Your task to perform on an android device: Go to calendar. Show me events next week Image 0: 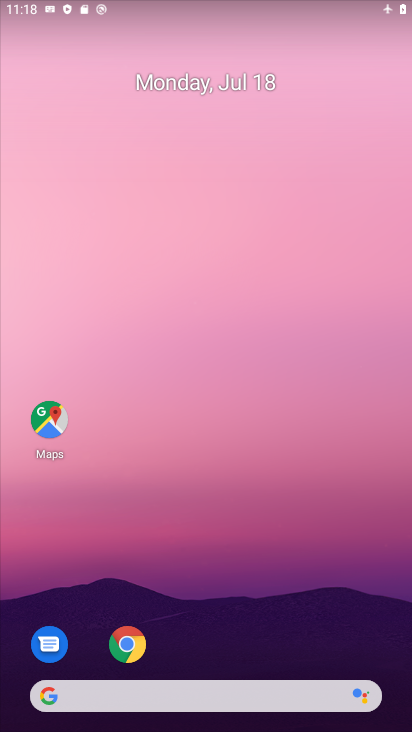
Step 0: drag from (221, 672) to (203, 133)
Your task to perform on an android device: Go to calendar. Show me events next week Image 1: 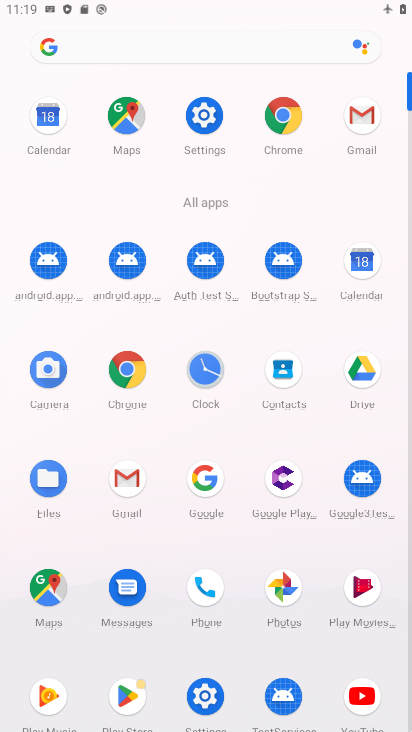
Step 1: click (356, 266)
Your task to perform on an android device: Go to calendar. Show me events next week Image 2: 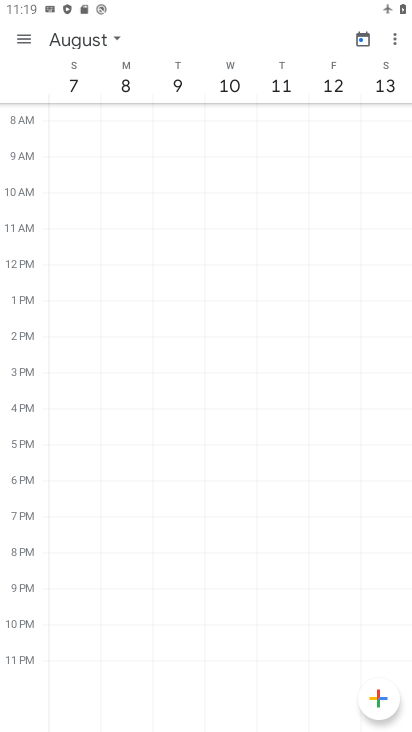
Step 2: task complete